Your task to perform on an android device: see sites visited before in the chrome app Image 0: 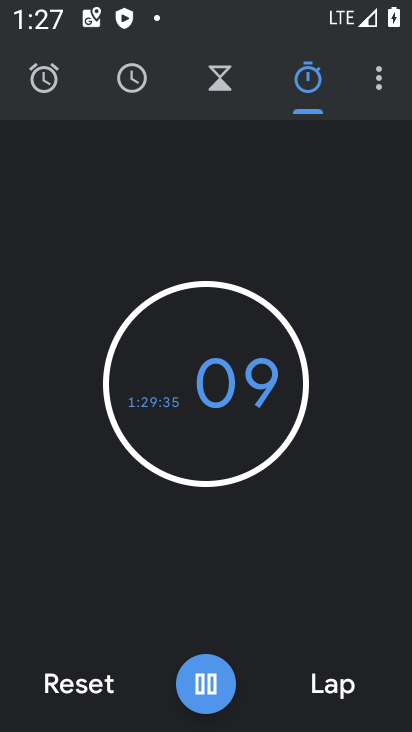
Step 0: press home button
Your task to perform on an android device: see sites visited before in the chrome app Image 1: 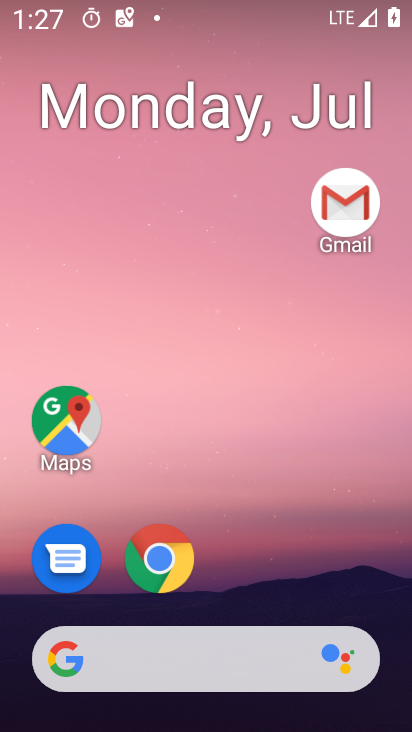
Step 1: drag from (341, 566) to (339, 155)
Your task to perform on an android device: see sites visited before in the chrome app Image 2: 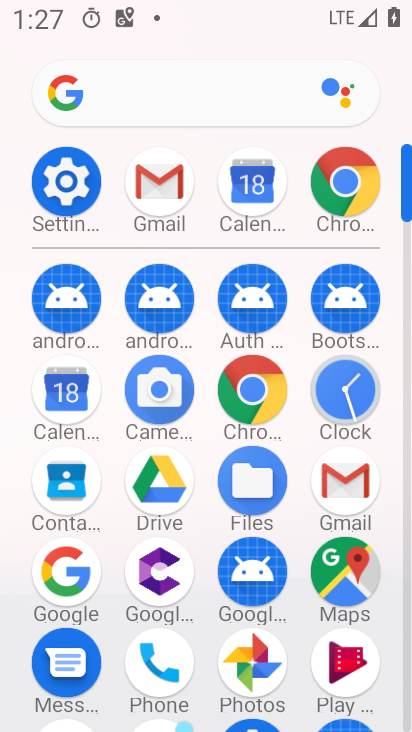
Step 2: click (276, 389)
Your task to perform on an android device: see sites visited before in the chrome app Image 3: 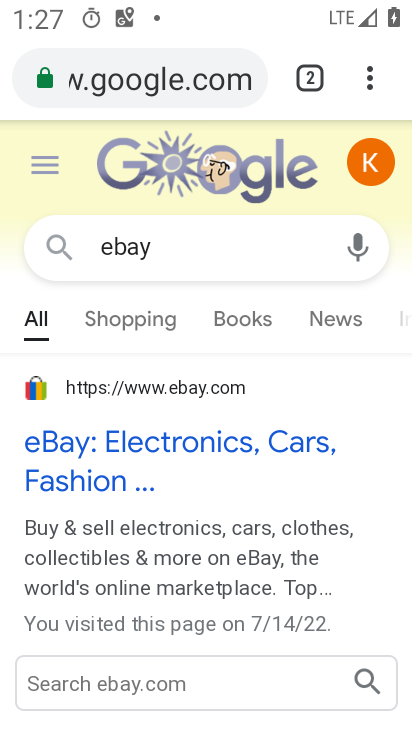
Step 3: click (371, 83)
Your task to perform on an android device: see sites visited before in the chrome app Image 4: 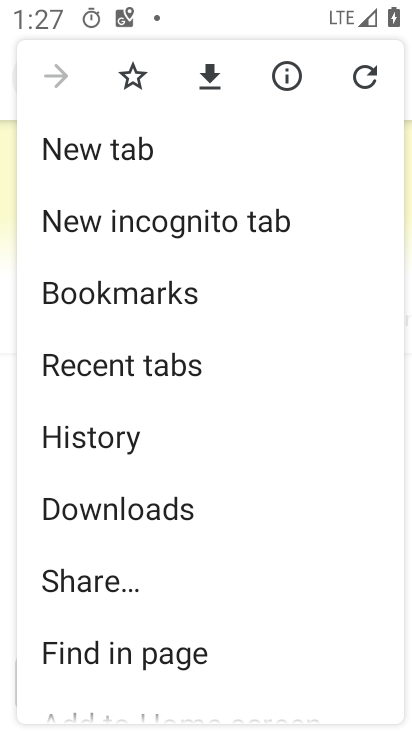
Step 4: click (193, 435)
Your task to perform on an android device: see sites visited before in the chrome app Image 5: 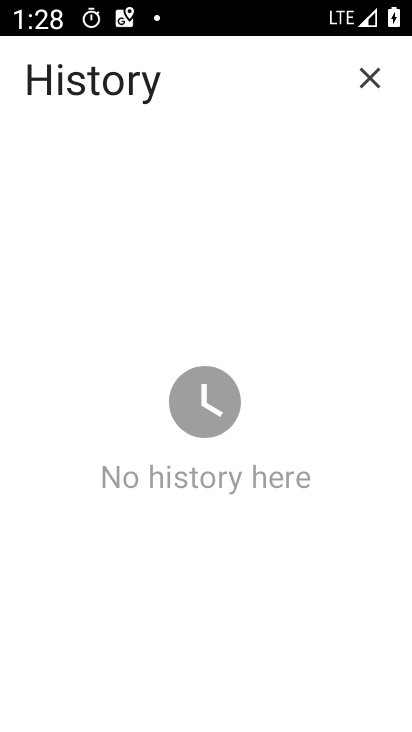
Step 5: task complete